Your task to perform on an android device: open wifi settings Image 0: 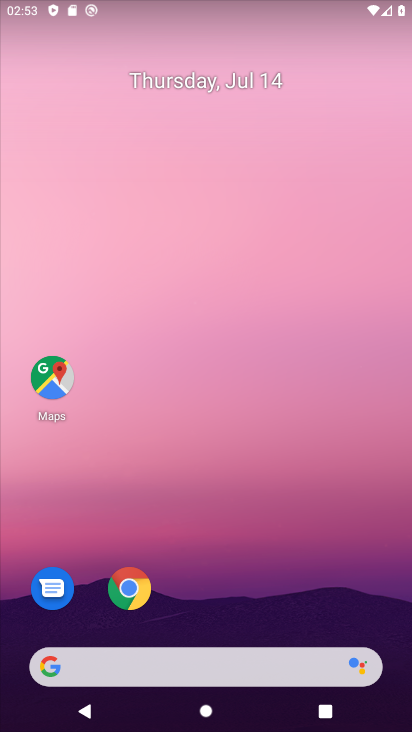
Step 0: drag from (241, 602) to (191, 238)
Your task to perform on an android device: open wifi settings Image 1: 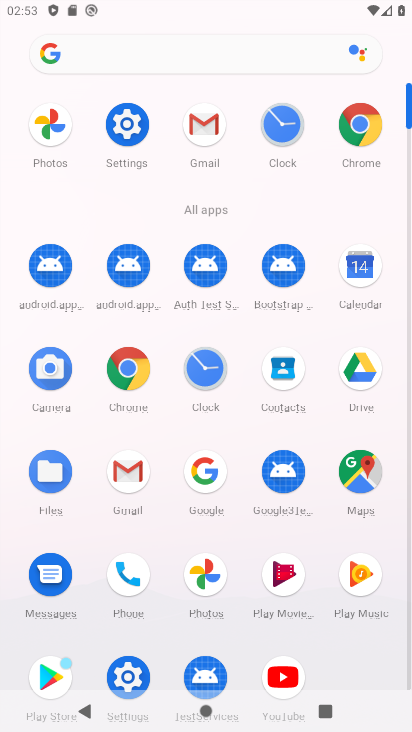
Step 1: click (126, 138)
Your task to perform on an android device: open wifi settings Image 2: 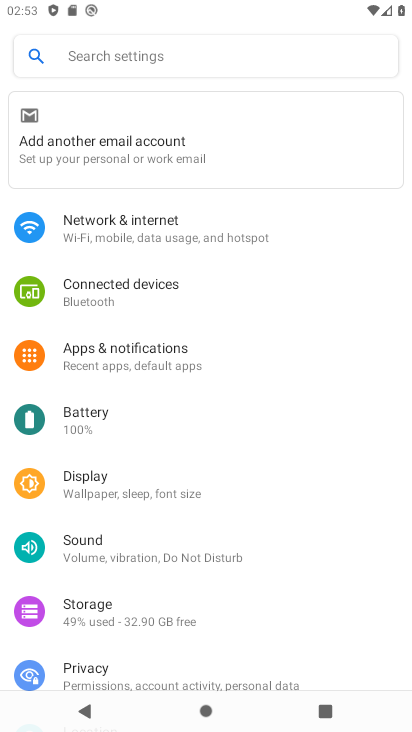
Step 2: click (167, 231)
Your task to perform on an android device: open wifi settings Image 3: 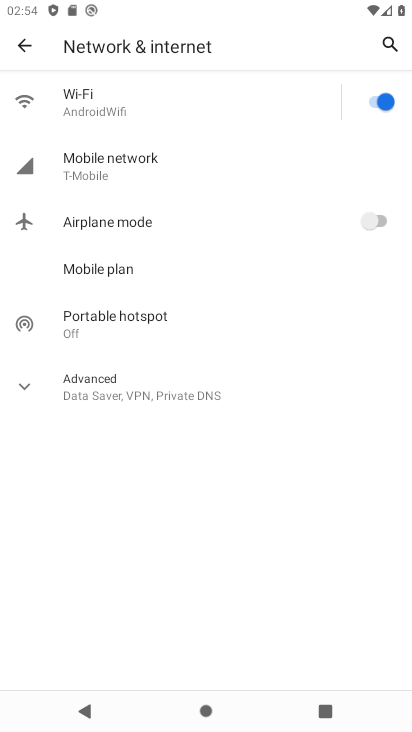
Step 3: click (150, 106)
Your task to perform on an android device: open wifi settings Image 4: 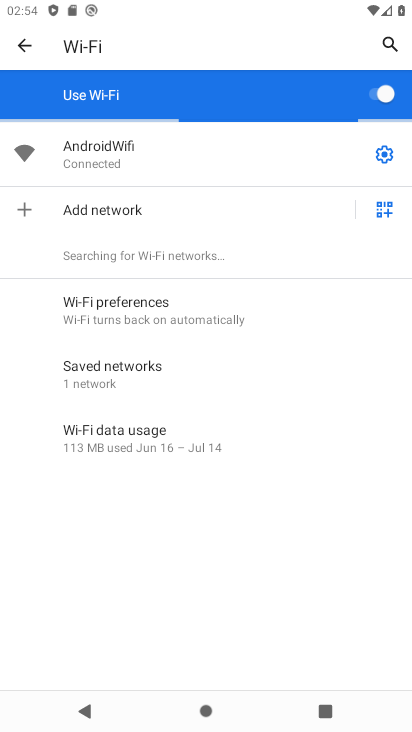
Step 4: task complete